Your task to perform on an android device: Is it going to rain today? Image 0: 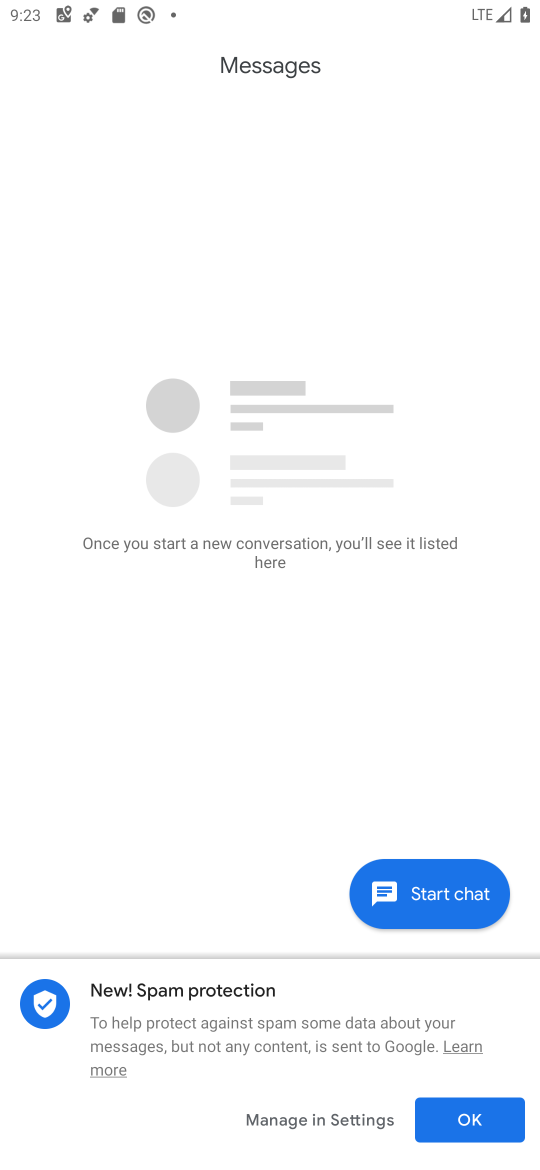
Step 0: press back button
Your task to perform on an android device: Is it going to rain today? Image 1: 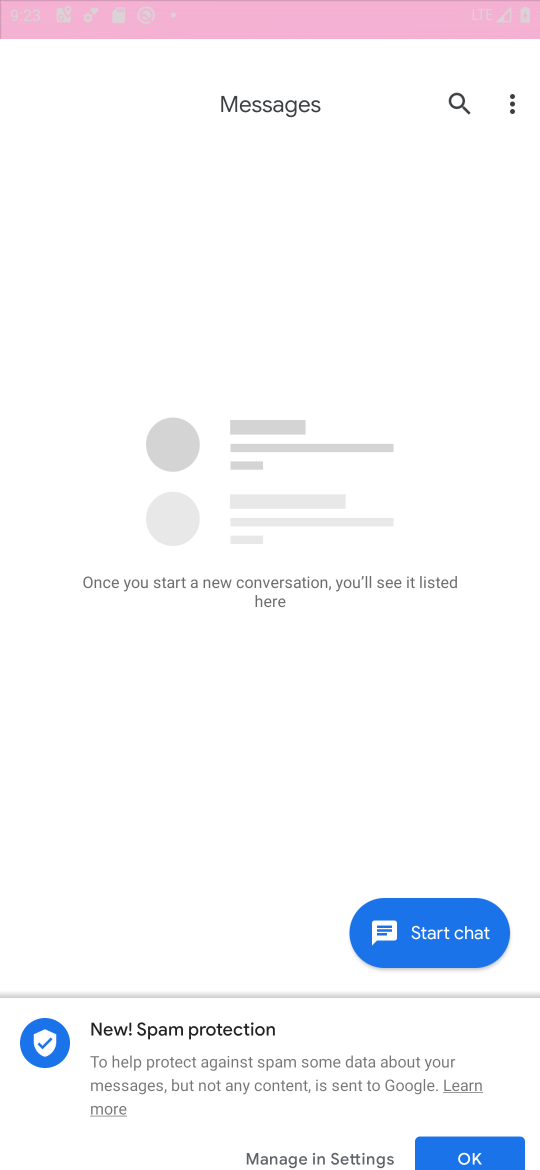
Step 1: press home button
Your task to perform on an android device: Is it going to rain today? Image 2: 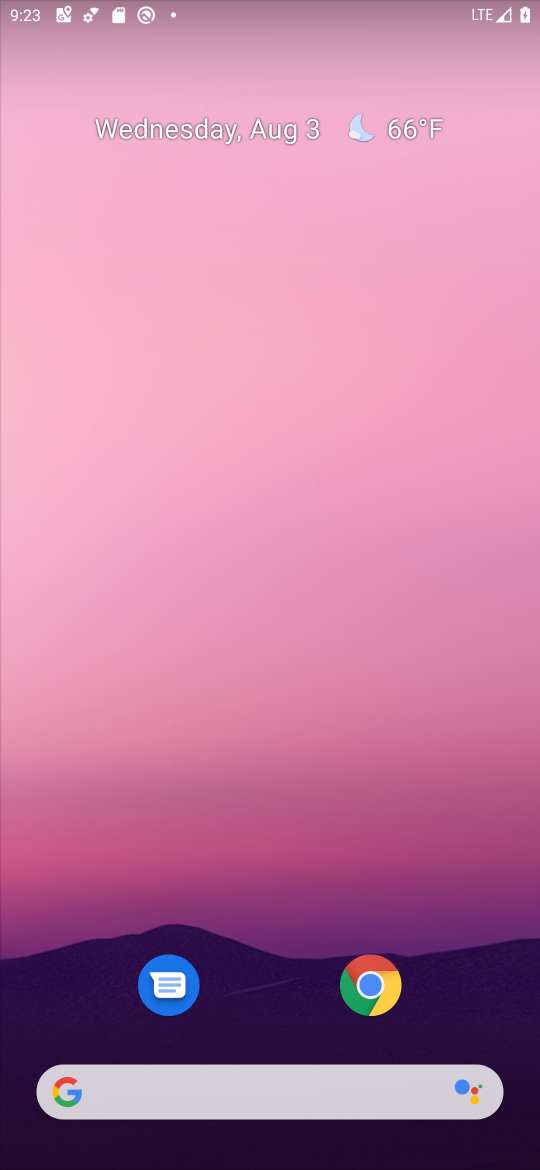
Step 2: drag from (246, 998) to (246, 232)
Your task to perform on an android device: Is it going to rain today? Image 3: 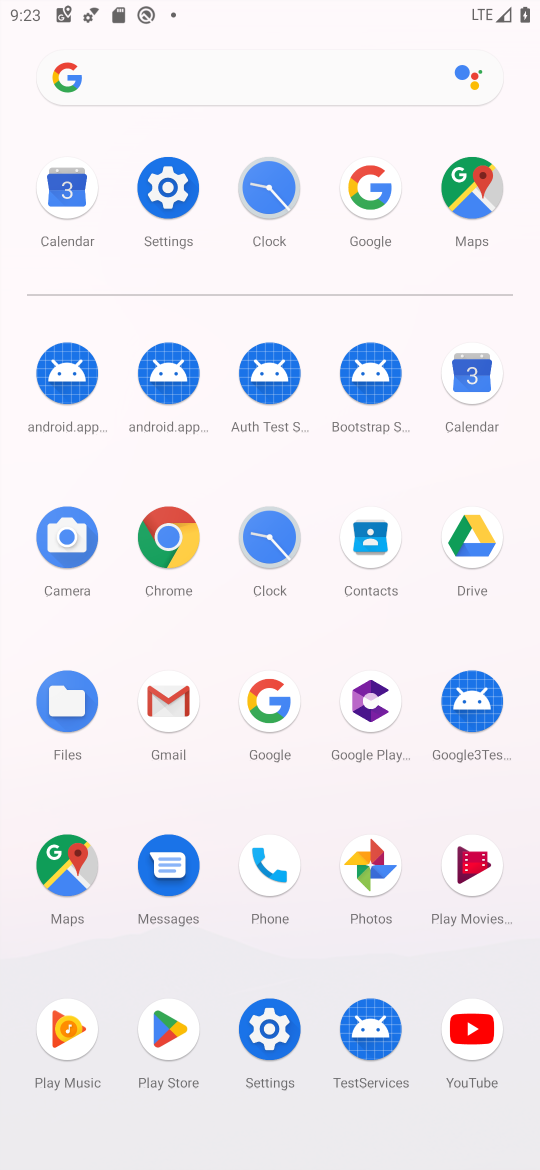
Step 3: click (274, 700)
Your task to perform on an android device: Is it going to rain today? Image 4: 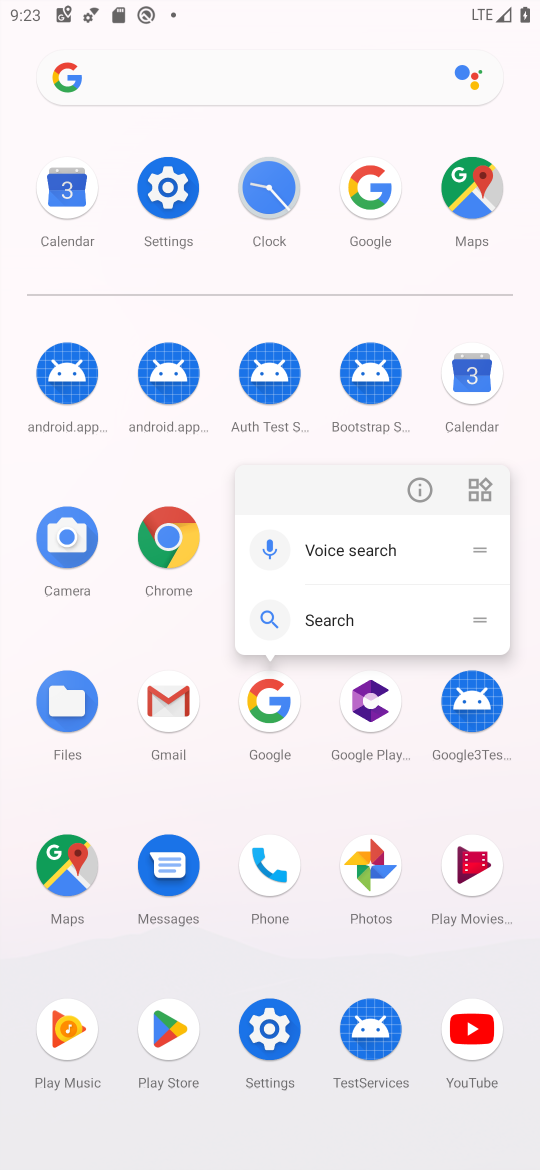
Step 4: click (274, 700)
Your task to perform on an android device: Is it going to rain today? Image 5: 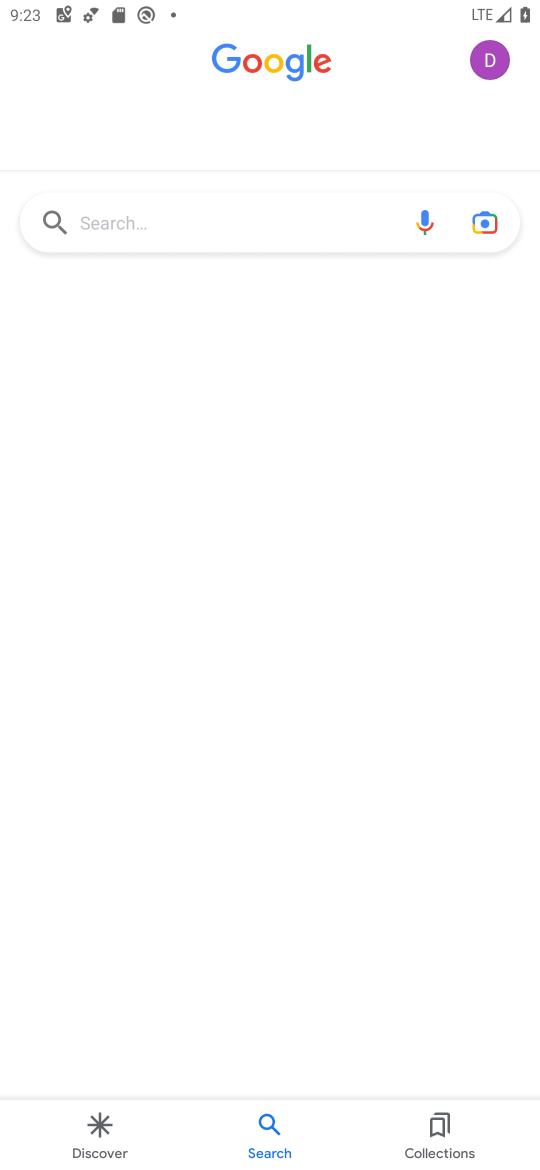
Step 5: click (160, 230)
Your task to perform on an android device: Is it going to rain today? Image 6: 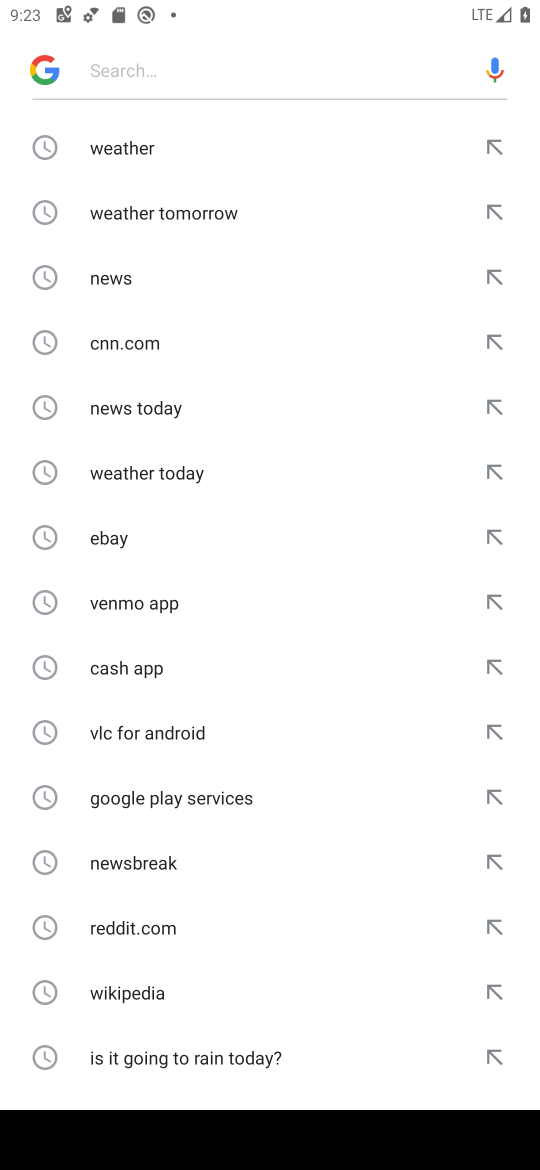
Step 6: click (159, 146)
Your task to perform on an android device: Is it going to rain today? Image 7: 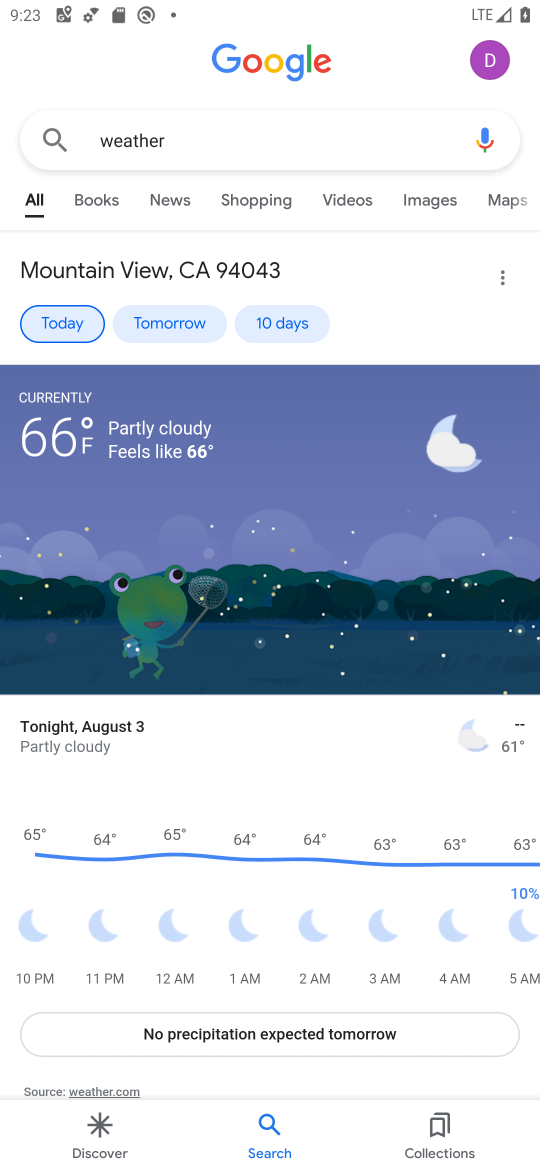
Step 7: task complete